Your task to perform on an android device: Search for seafood restaurants on Google Maps Image 0: 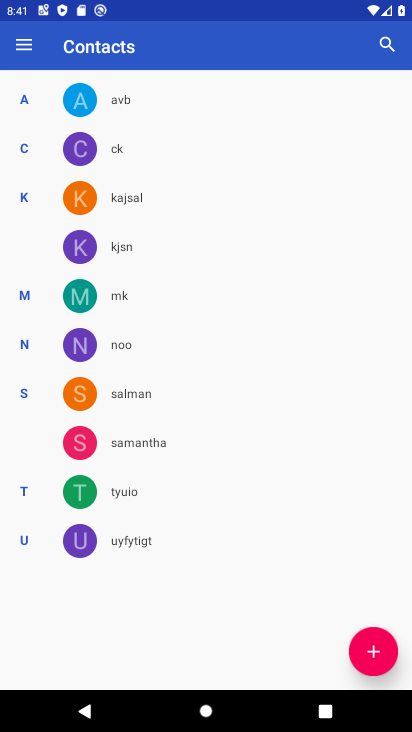
Step 0: press home button
Your task to perform on an android device: Search for seafood restaurants on Google Maps Image 1: 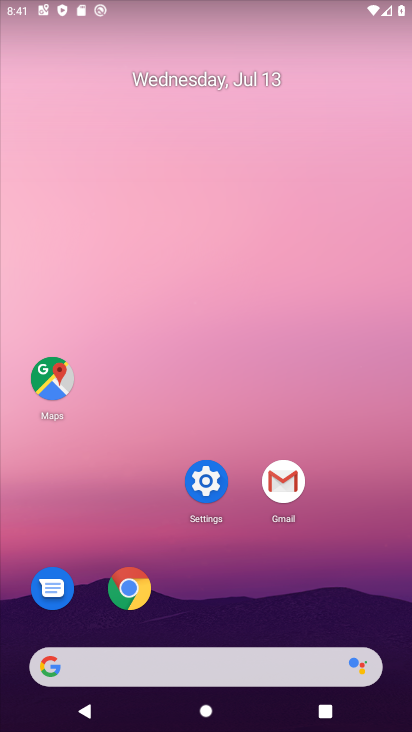
Step 1: click (55, 383)
Your task to perform on an android device: Search for seafood restaurants on Google Maps Image 2: 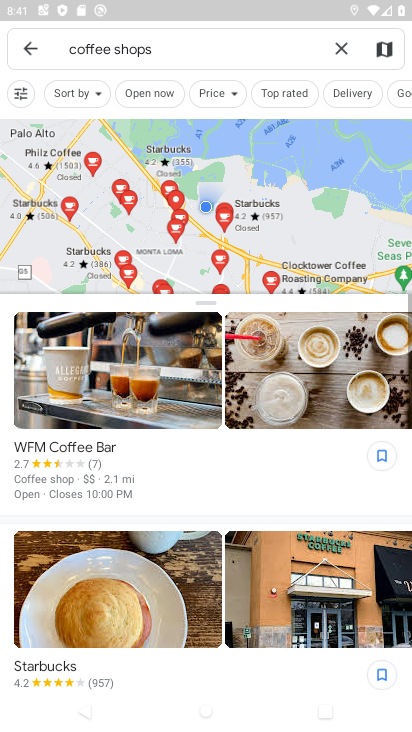
Step 2: click (344, 39)
Your task to perform on an android device: Search for seafood restaurants on Google Maps Image 3: 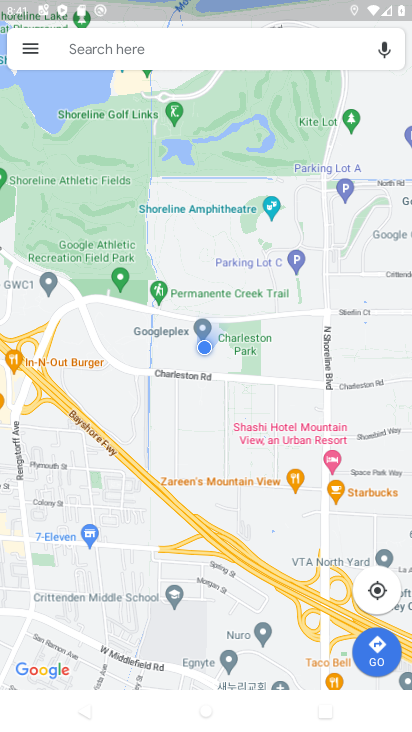
Step 3: type "seafood restaurants"
Your task to perform on an android device: Search for seafood restaurants on Google Maps Image 4: 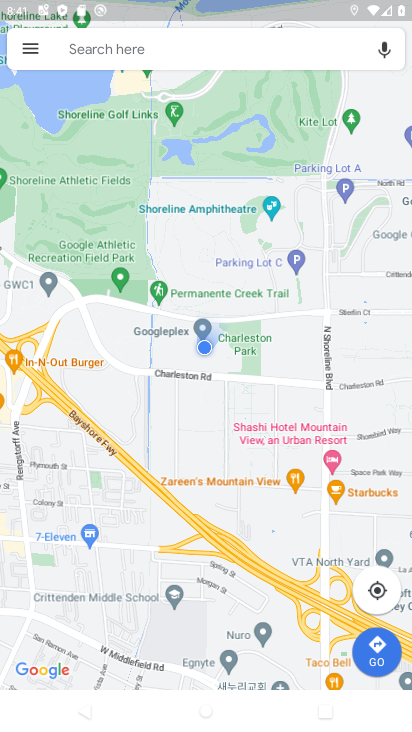
Step 4: click (122, 47)
Your task to perform on an android device: Search for seafood restaurants on Google Maps Image 5: 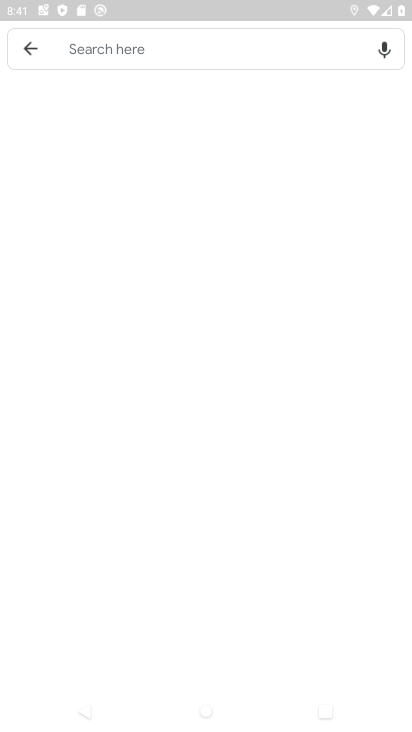
Step 5: click (135, 45)
Your task to perform on an android device: Search for seafood restaurants on Google Maps Image 6: 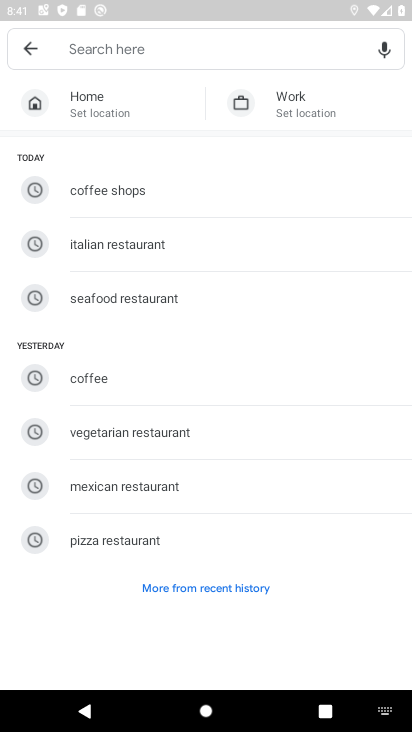
Step 6: type "seafood restaurants"
Your task to perform on an android device: Search for seafood restaurants on Google Maps Image 7: 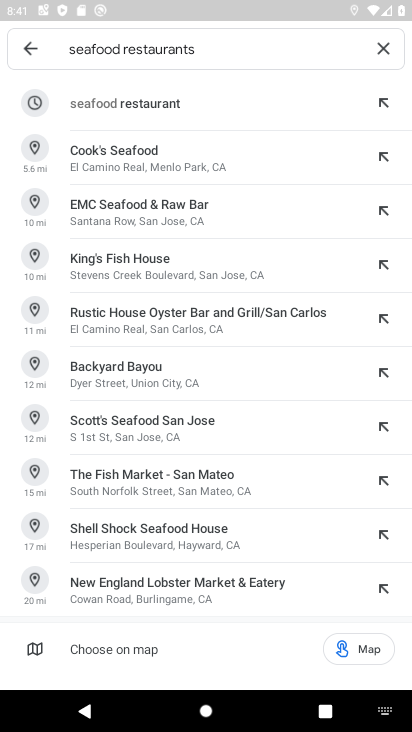
Step 7: click (158, 102)
Your task to perform on an android device: Search for seafood restaurants on Google Maps Image 8: 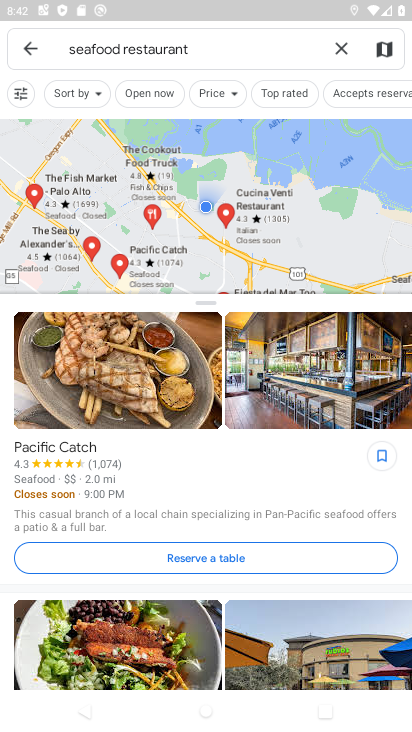
Step 8: task complete